Your task to perform on an android device: turn on priority inbox in the gmail app Image 0: 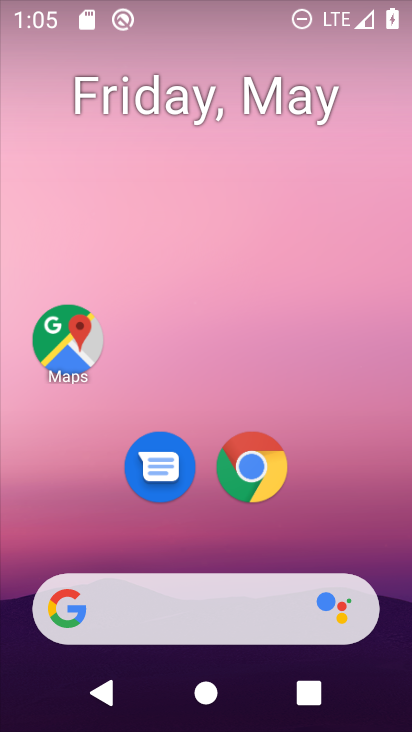
Step 0: drag from (271, 584) to (309, 9)
Your task to perform on an android device: turn on priority inbox in the gmail app Image 1: 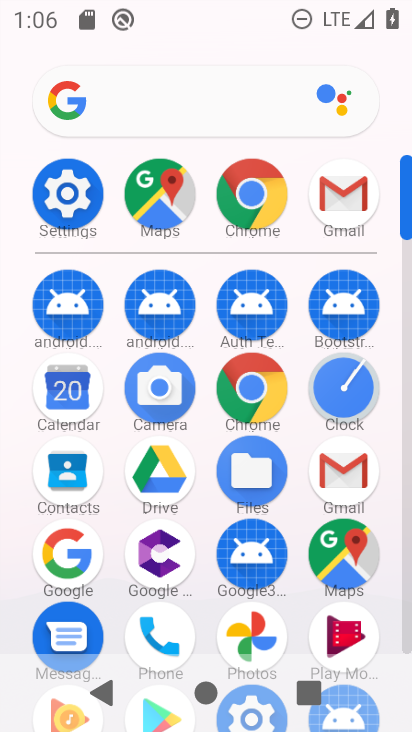
Step 1: click (335, 471)
Your task to perform on an android device: turn on priority inbox in the gmail app Image 2: 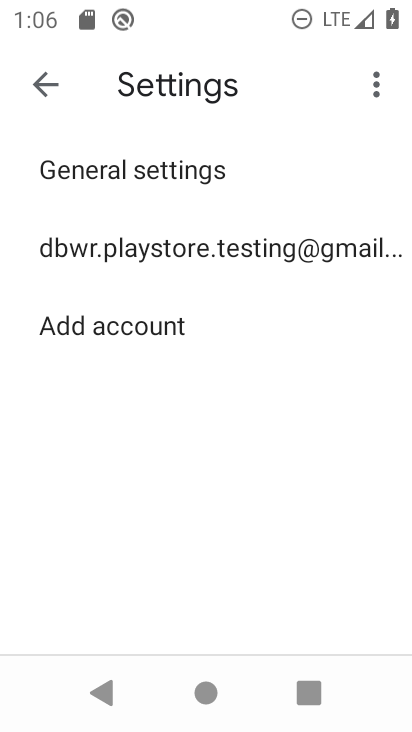
Step 2: click (188, 249)
Your task to perform on an android device: turn on priority inbox in the gmail app Image 3: 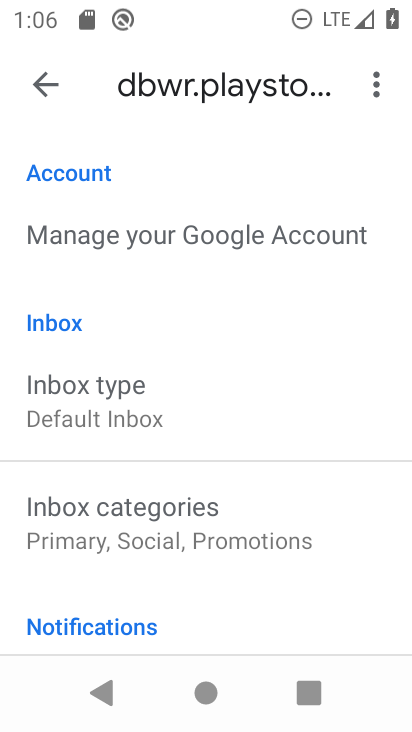
Step 3: click (149, 380)
Your task to perform on an android device: turn on priority inbox in the gmail app Image 4: 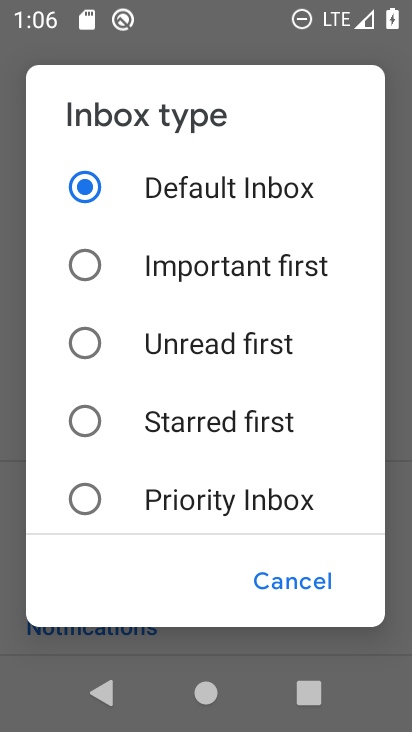
Step 4: click (85, 496)
Your task to perform on an android device: turn on priority inbox in the gmail app Image 5: 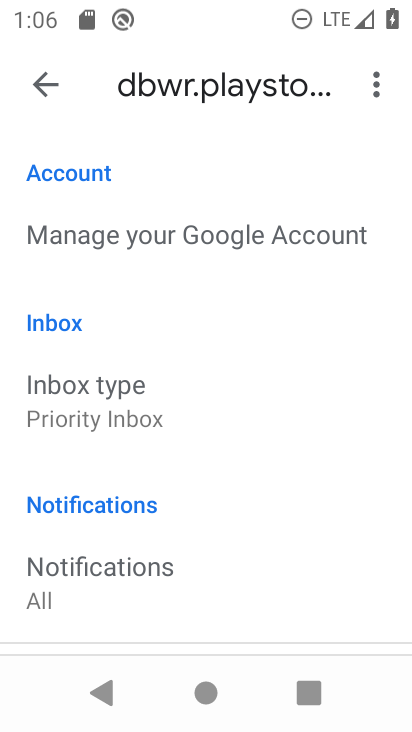
Step 5: task complete